Your task to perform on an android device: Open the map Image 0: 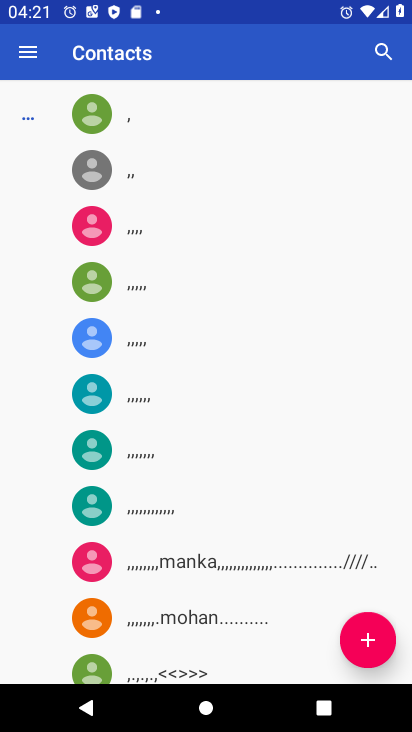
Step 0: press home button
Your task to perform on an android device: Open the map Image 1: 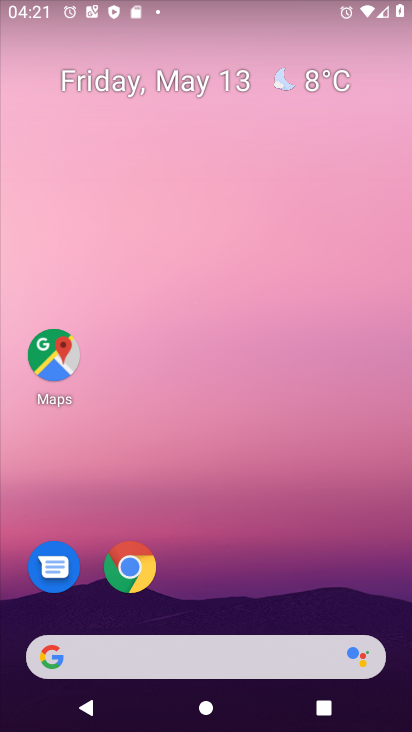
Step 1: click (53, 364)
Your task to perform on an android device: Open the map Image 2: 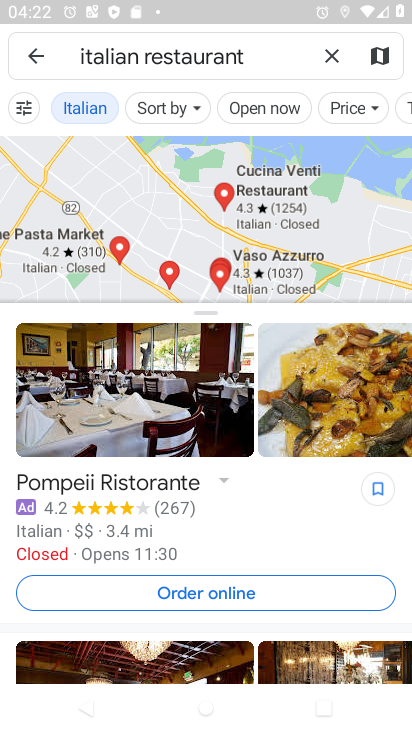
Step 2: task complete